Your task to perform on an android device: turn off sleep mode Image 0: 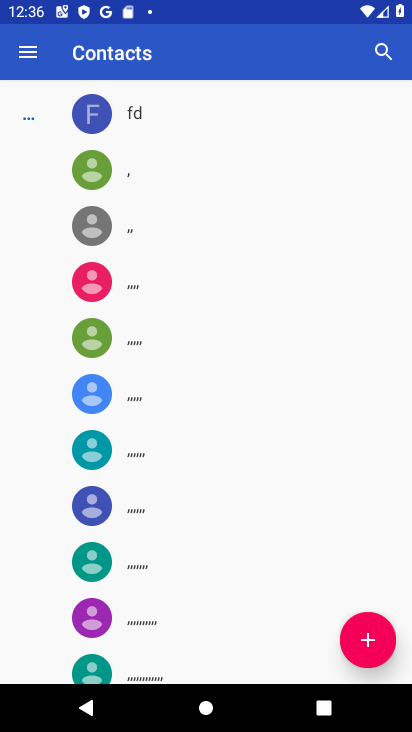
Step 0: press home button
Your task to perform on an android device: turn off sleep mode Image 1: 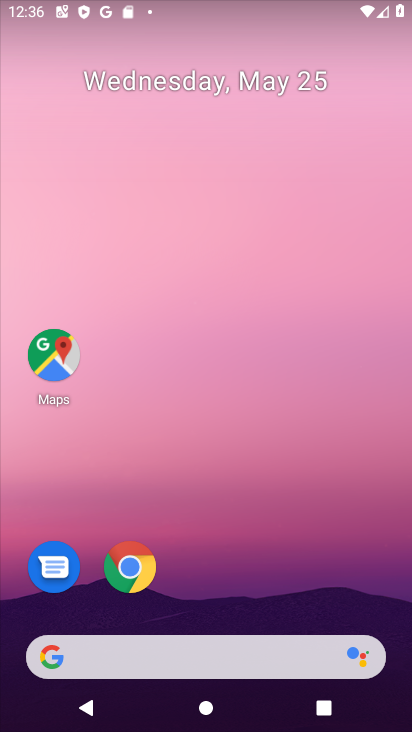
Step 1: drag from (243, 545) to (212, 74)
Your task to perform on an android device: turn off sleep mode Image 2: 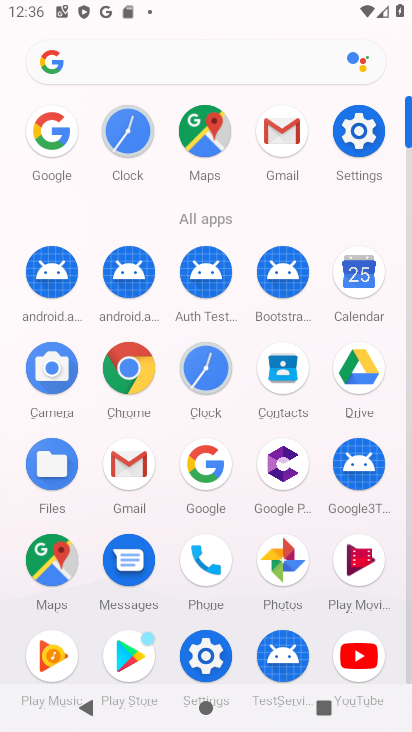
Step 2: click (365, 125)
Your task to perform on an android device: turn off sleep mode Image 3: 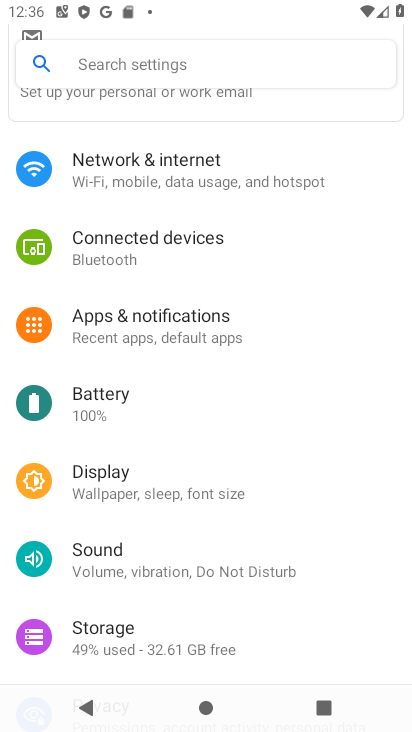
Step 3: click (135, 485)
Your task to perform on an android device: turn off sleep mode Image 4: 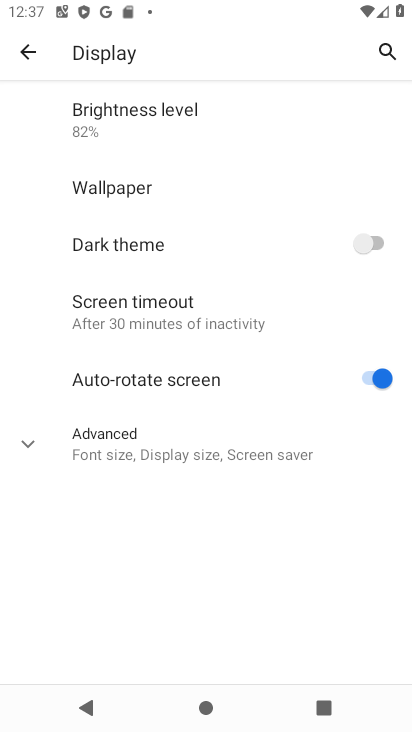
Step 4: click (128, 313)
Your task to perform on an android device: turn off sleep mode Image 5: 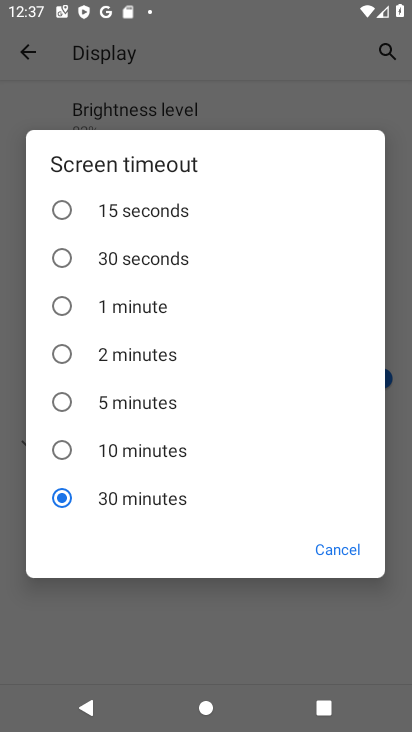
Step 5: drag from (128, 310) to (150, 433)
Your task to perform on an android device: turn off sleep mode Image 6: 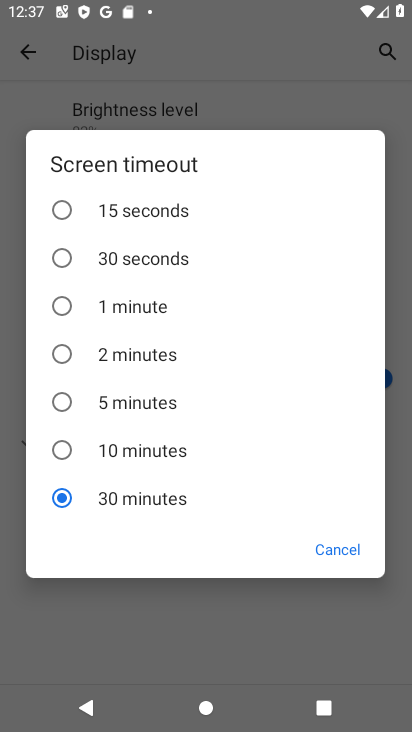
Step 6: click (347, 536)
Your task to perform on an android device: turn off sleep mode Image 7: 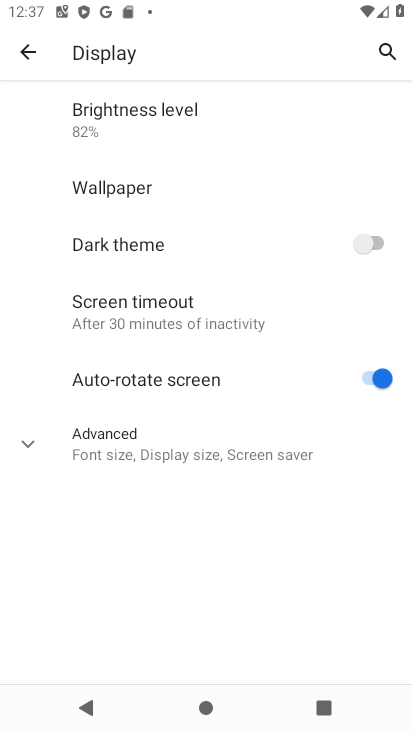
Step 7: task complete